Your task to perform on an android device: Play the last video I watched on Youtube Image 0: 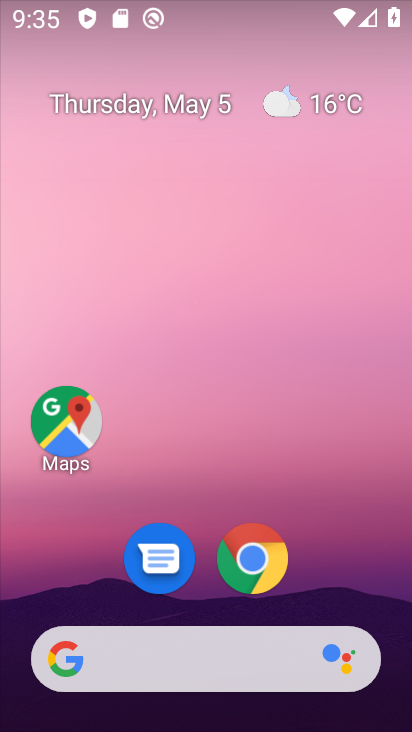
Step 0: drag from (369, 593) to (381, 142)
Your task to perform on an android device: Play the last video I watched on Youtube Image 1: 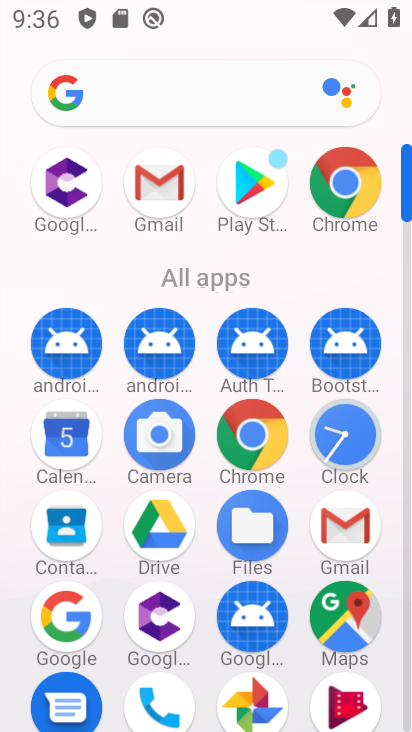
Step 1: drag from (394, 660) to (391, 350)
Your task to perform on an android device: Play the last video I watched on Youtube Image 2: 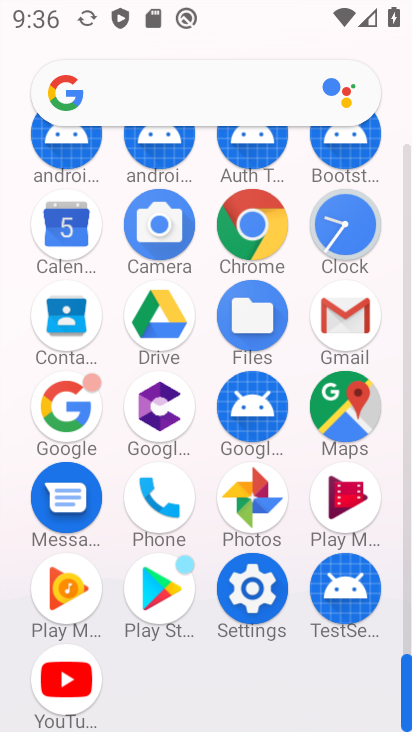
Step 2: click (94, 687)
Your task to perform on an android device: Play the last video I watched on Youtube Image 3: 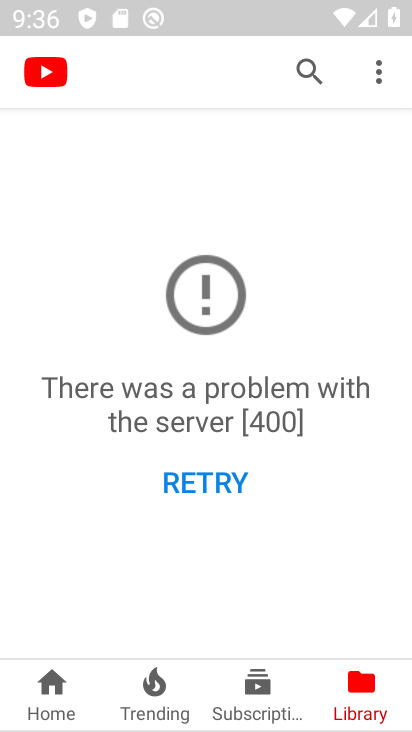
Step 3: task complete